Your task to perform on an android device: delete the emails in spam in the gmail app Image 0: 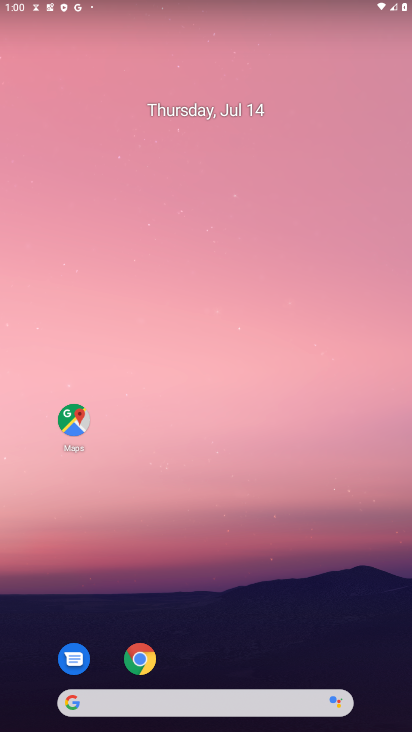
Step 0: drag from (33, 696) to (257, 38)
Your task to perform on an android device: delete the emails in spam in the gmail app Image 1: 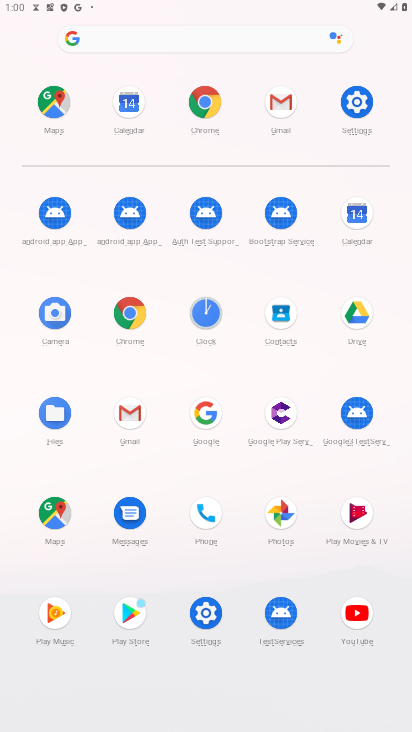
Step 1: click (110, 425)
Your task to perform on an android device: delete the emails in spam in the gmail app Image 2: 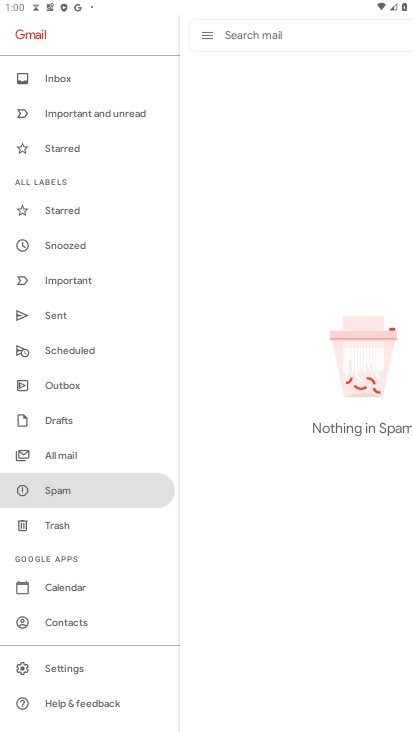
Step 2: click (71, 498)
Your task to perform on an android device: delete the emails in spam in the gmail app Image 3: 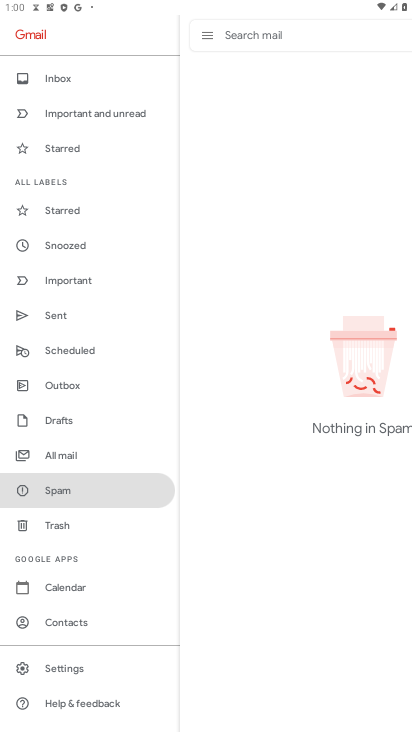
Step 3: click (79, 495)
Your task to perform on an android device: delete the emails in spam in the gmail app Image 4: 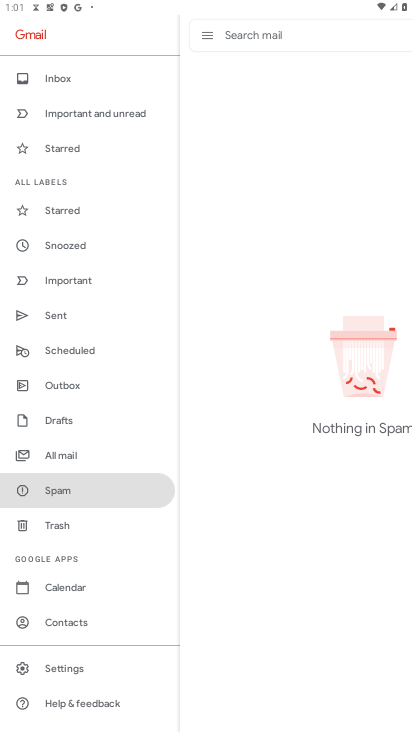
Step 4: task complete